Your task to perform on an android device: Open location settings Image 0: 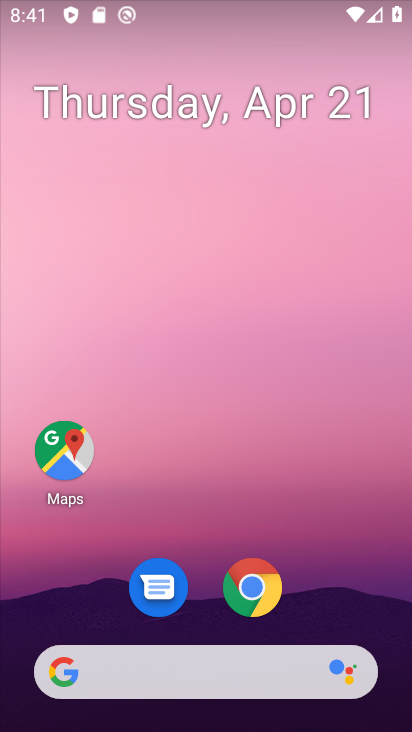
Step 0: click (299, 585)
Your task to perform on an android device: Open location settings Image 1: 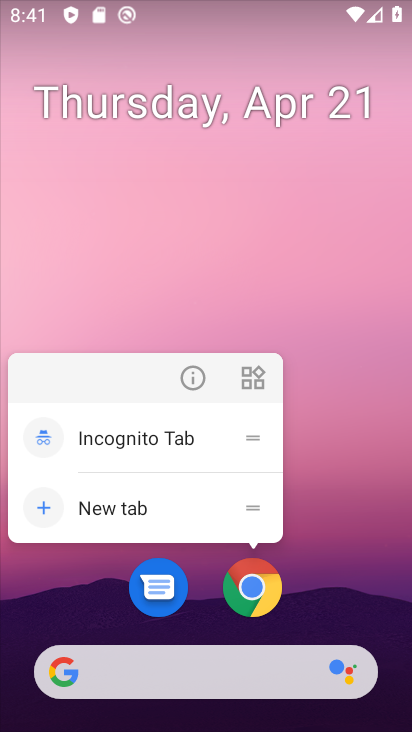
Step 1: drag from (340, 594) to (206, 201)
Your task to perform on an android device: Open location settings Image 2: 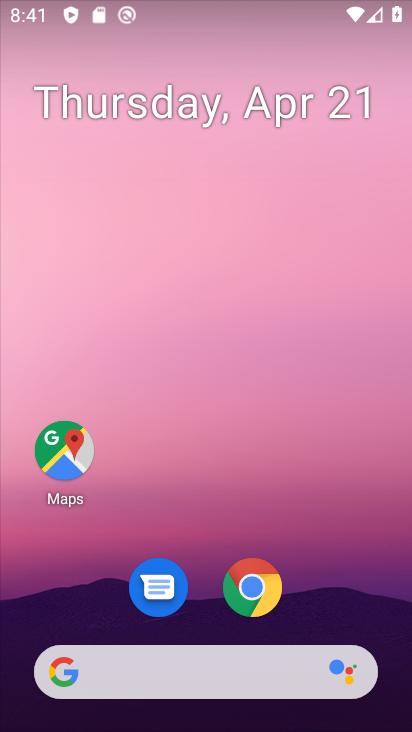
Step 2: drag from (312, 605) to (251, 276)
Your task to perform on an android device: Open location settings Image 3: 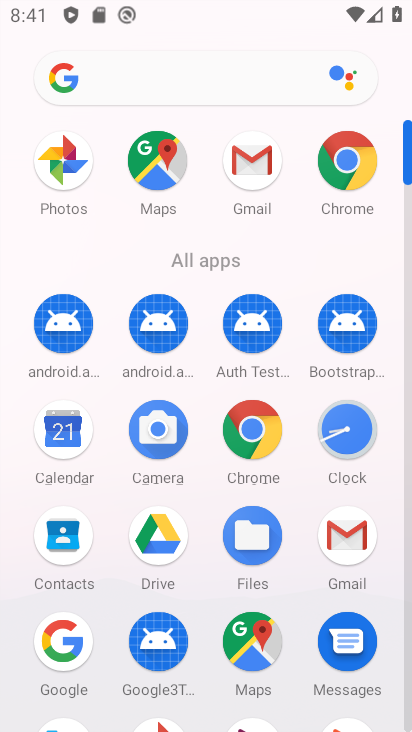
Step 3: drag from (266, 533) to (273, 334)
Your task to perform on an android device: Open location settings Image 4: 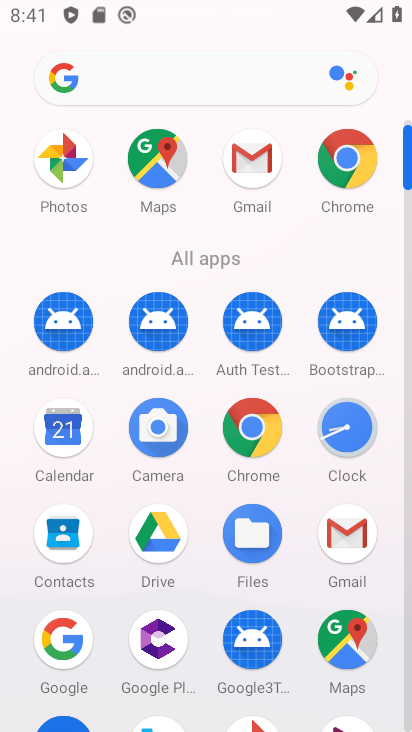
Step 4: drag from (290, 464) to (370, 66)
Your task to perform on an android device: Open location settings Image 5: 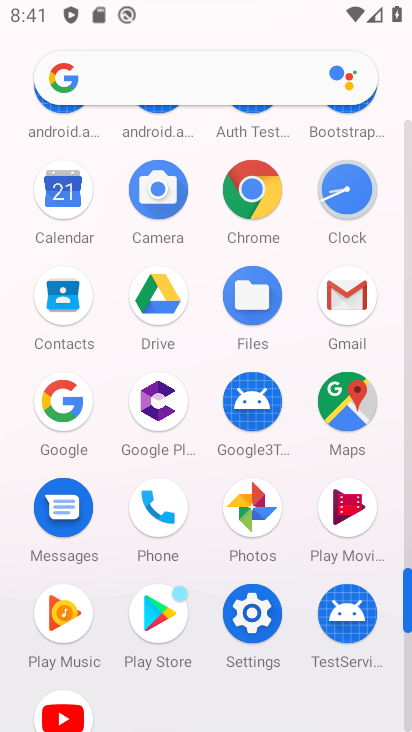
Step 5: click (251, 612)
Your task to perform on an android device: Open location settings Image 6: 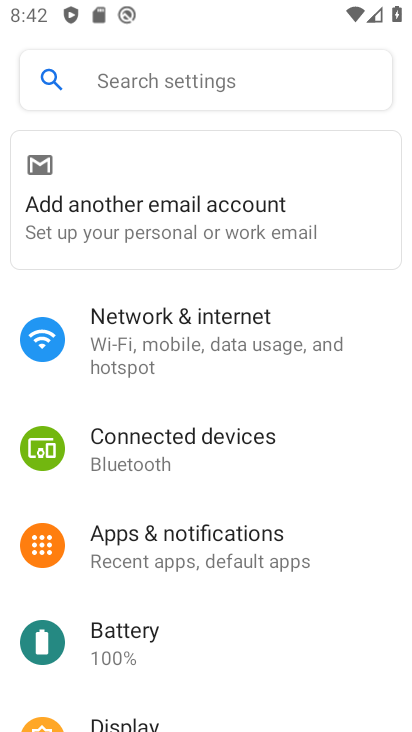
Step 6: drag from (175, 646) to (202, 197)
Your task to perform on an android device: Open location settings Image 7: 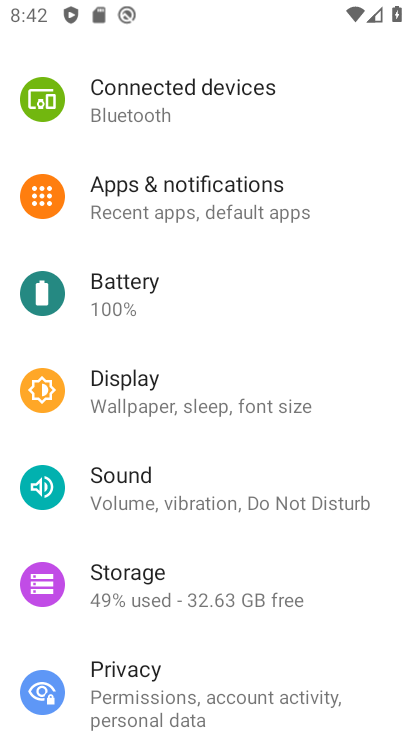
Step 7: drag from (209, 630) to (197, 227)
Your task to perform on an android device: Open location settings Image 8: 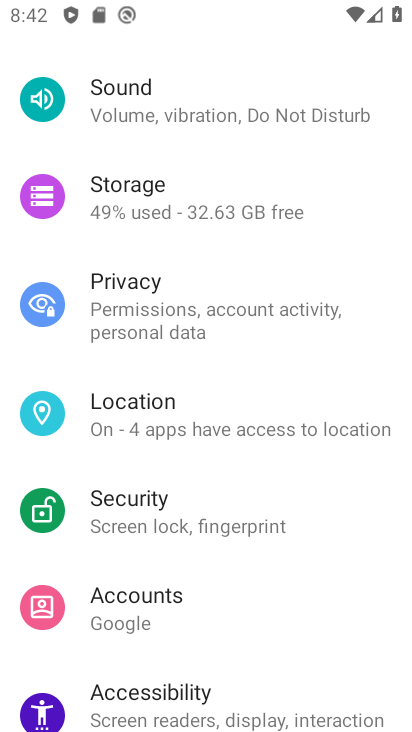
Step 8: click (155, 405)
Your task to perform on an android device: Open location settings Image 9: 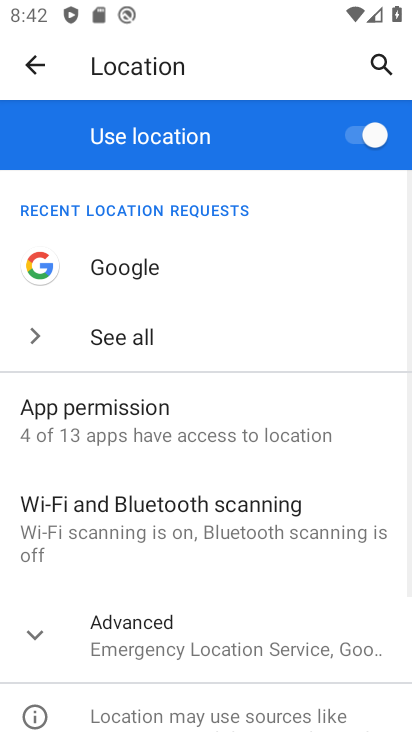
Step 9: task complete